Your task to perform on an android device: Open settings on Google Maps Image 0: 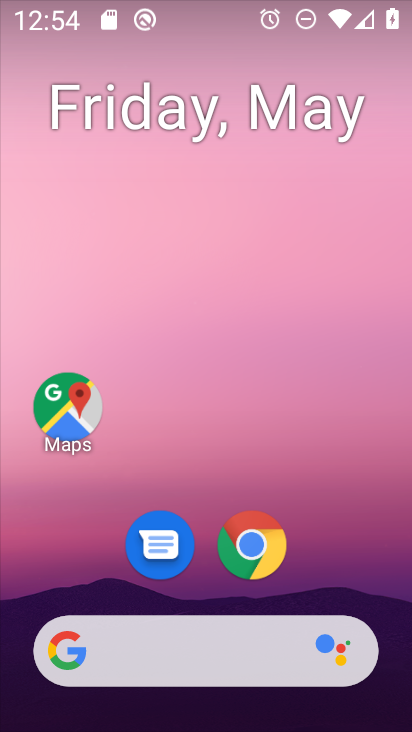
Step 0: click (61, 409)
Your task to perform on an android device: Open settings on Google Maps Image 1: 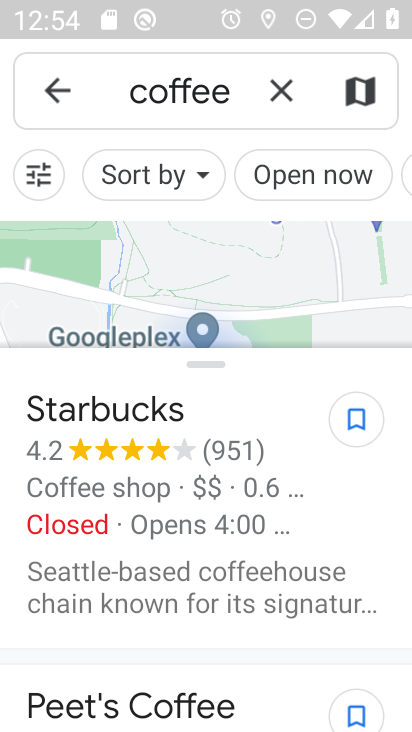
Step 1: click (276, 93)
Your task to perform on an android device: Open settings on Google Maps Image 2: 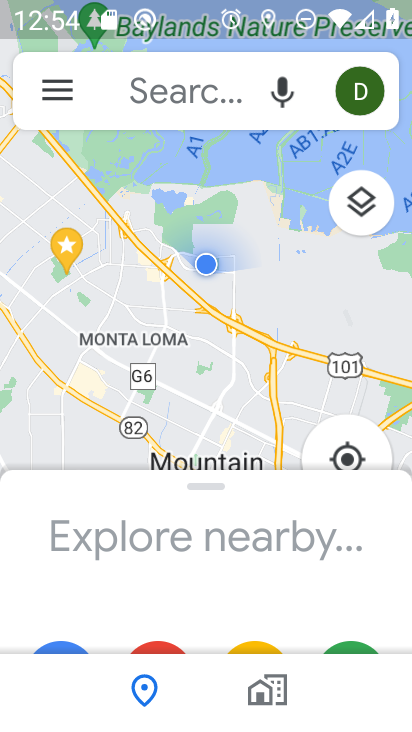
Step 2: click (62, 91)
Your task to perform on an android device: Open settings on Google Maps Image 3: 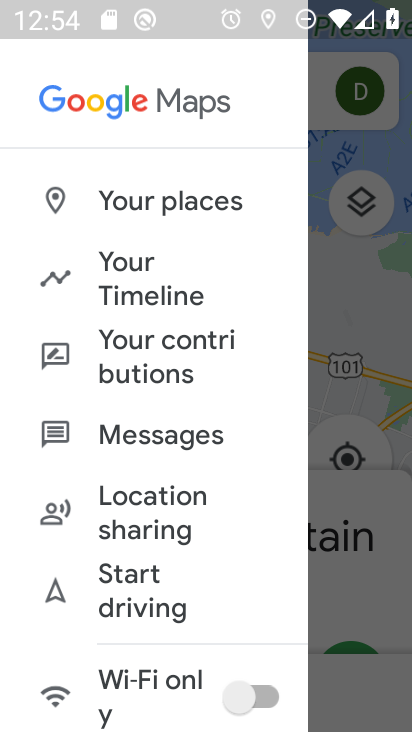
Step 3: drag from (187, 599) to (225, 272)
Your task to perform on an android device: Open settings on Google Maps Image 4: 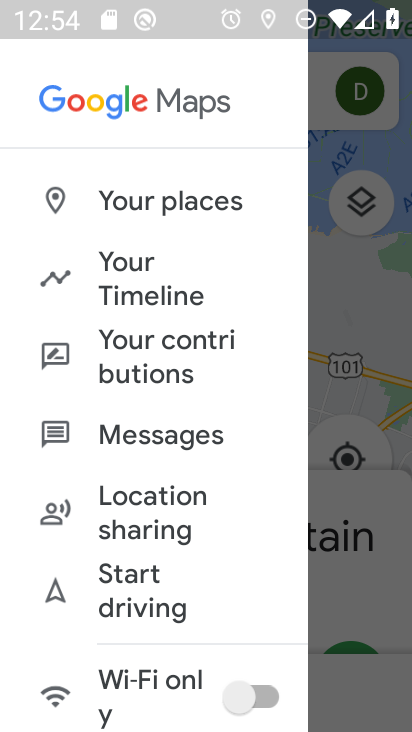
Step 4: drag from (175, 653) to (213, 203)
Your task to perform on an android device: Open settings on Google Maps Image 5: 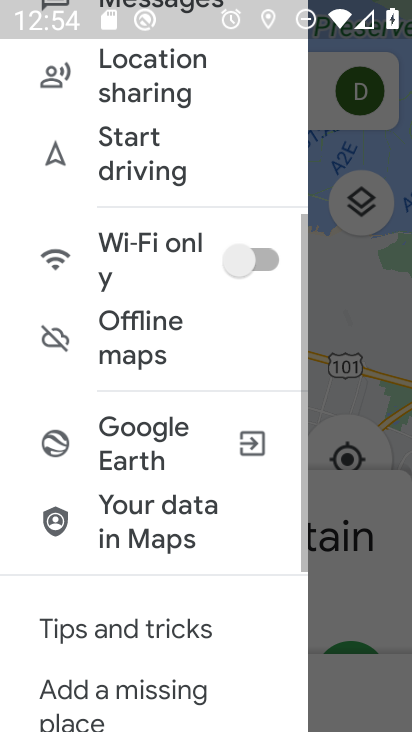
Step 5: drag from (179, 579) to (189, 298)
Your task to perform on an android device: Open settings on Google Maps Image 6: 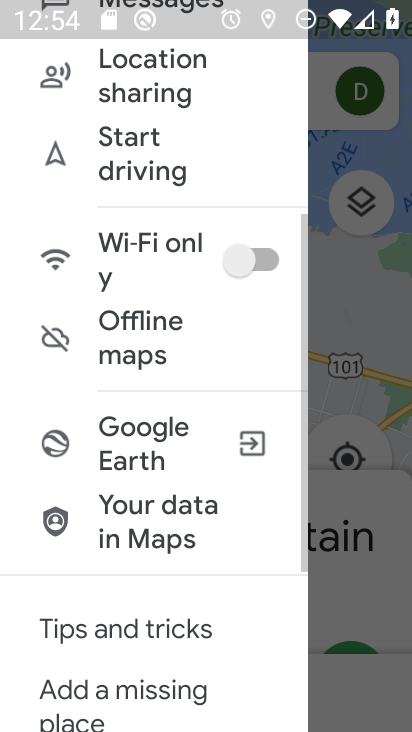
Step 6: drag from (167, 619) to (197, 267)
Your task to perform on an android device: Open settings on Google Maps Image 7: 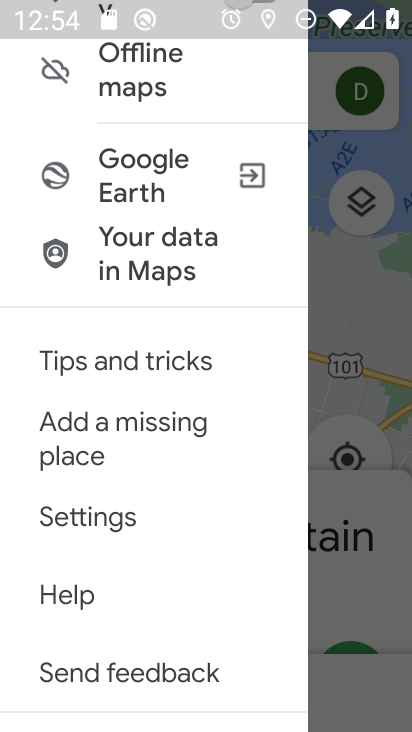
Step 7: click (122, 513)
Your task to perform on an android device: Open settings on Google Maps Image 8: 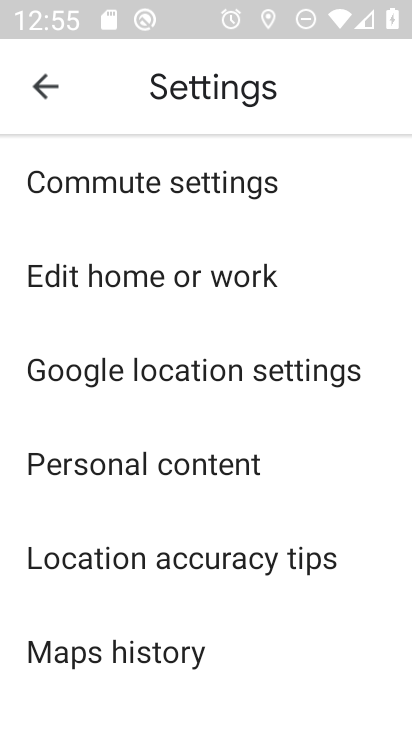
Step 8: task complete